Your task to perform on an android device: toggle show notifications on the lock screen Image 0: 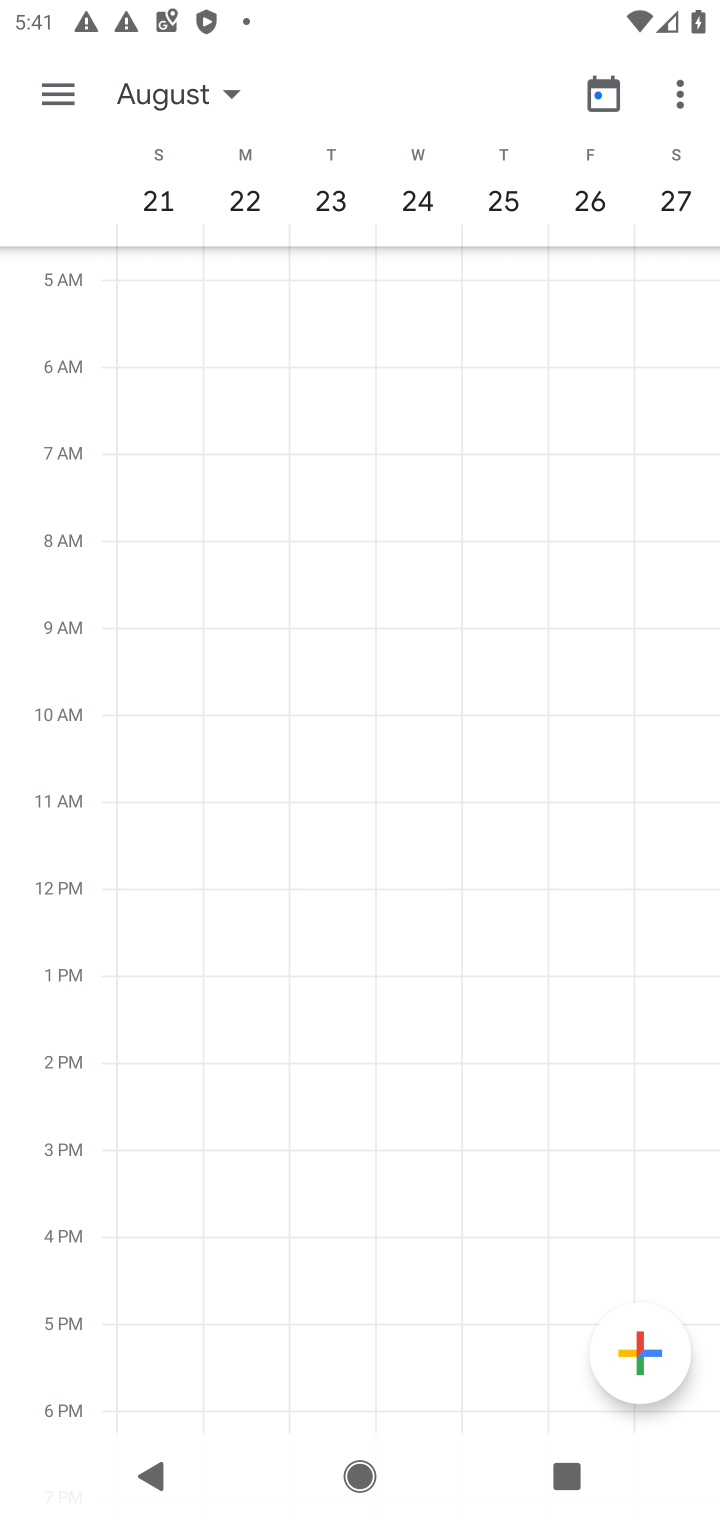
Step 0: press home button
Your task to perform on an android device: toggle show notifications on the lock screen Image 1: 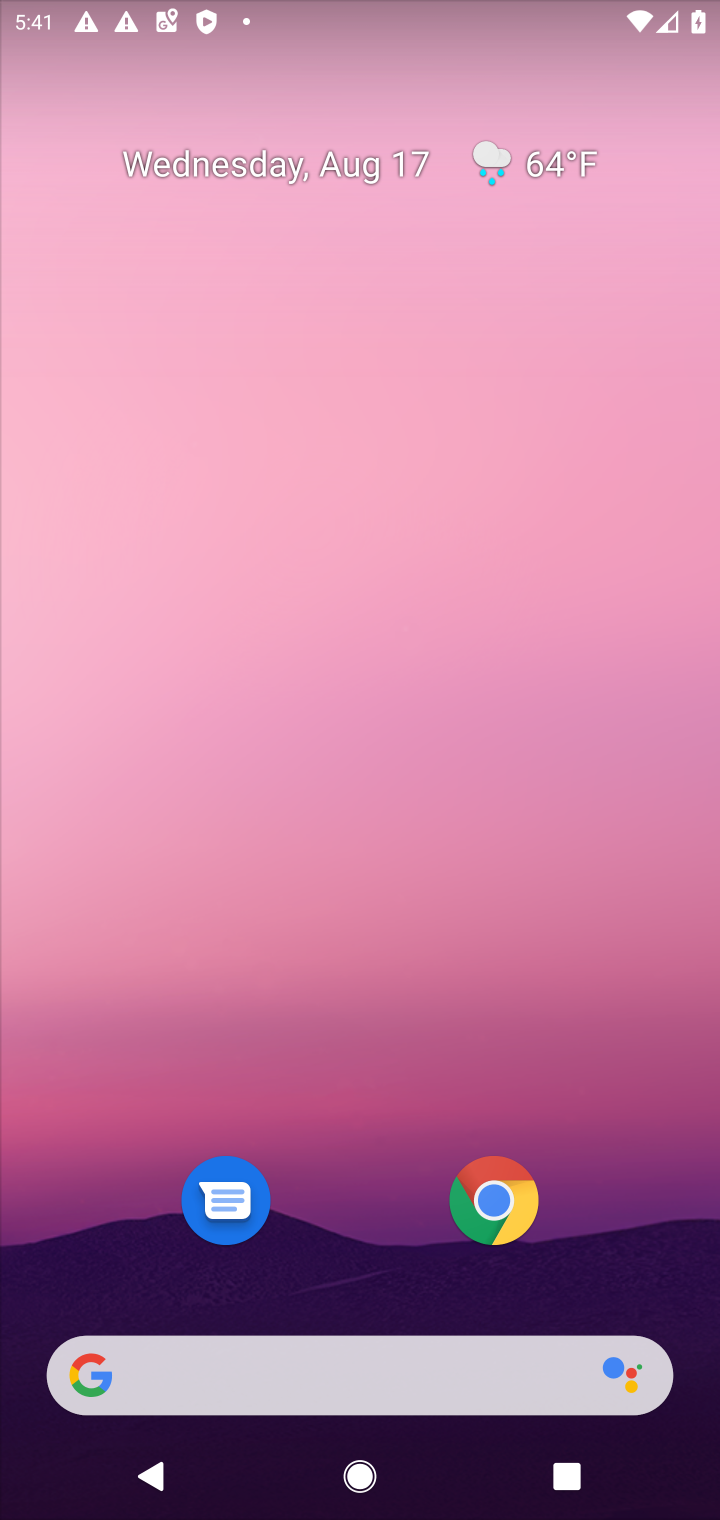
Step 1: drag from (397, 1242) to (416, 174)
Your task to perform on an android device: toggle show notifications on the lock screen Image 2: 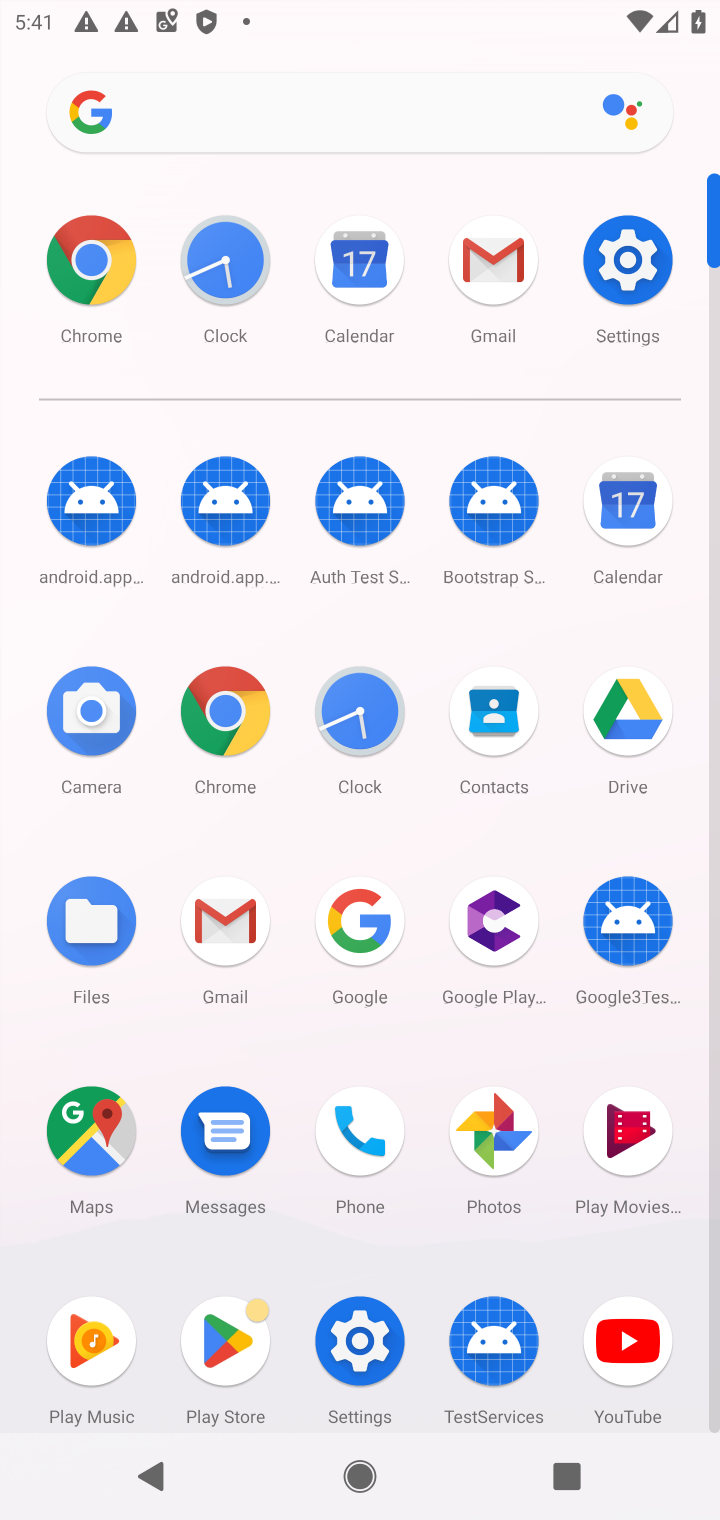
Step 2: click (365, 1331)
Your task to perform on an android device: toggle show notifications on the lock screen Image 3: 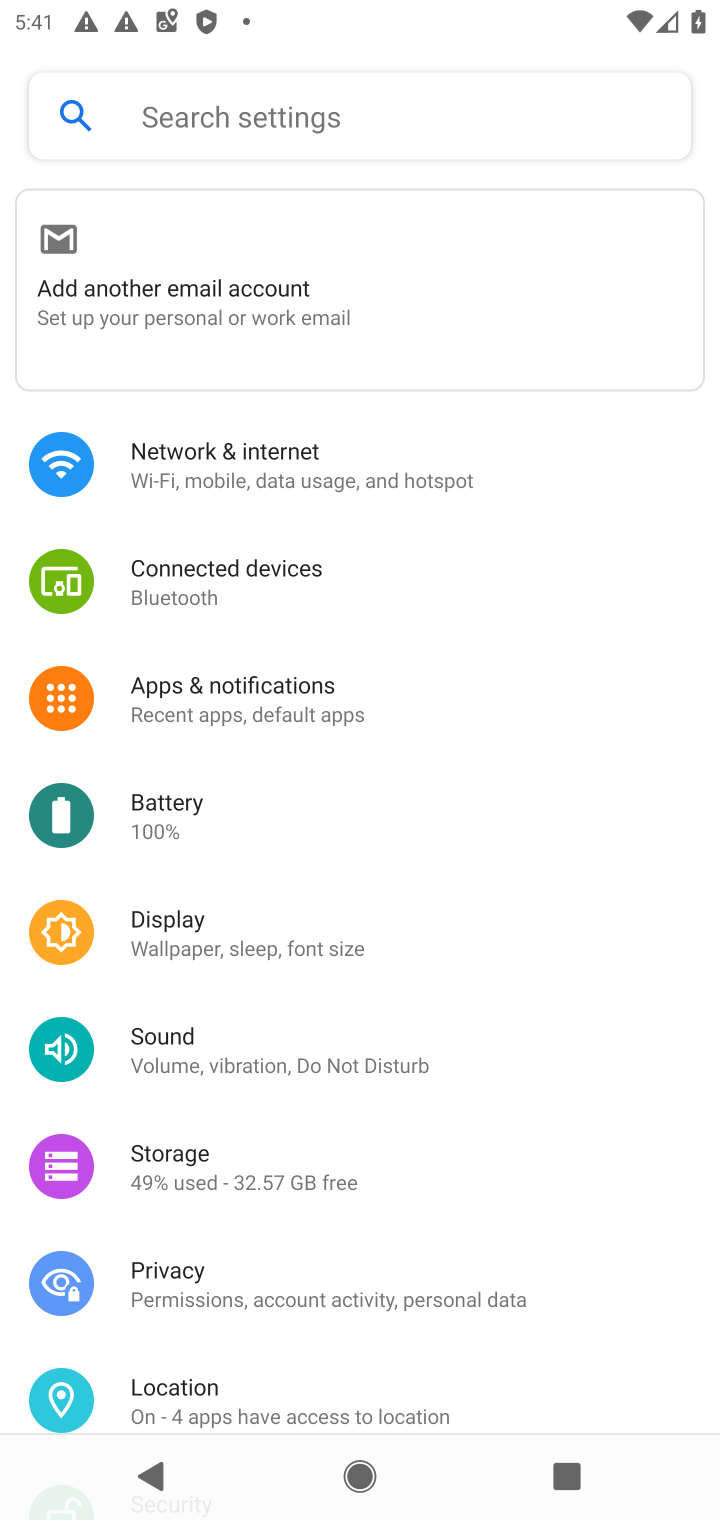
Step 3: click (145, 690)
Your task to perform on an android device: toggle show notifications on the lock screen Image 4: 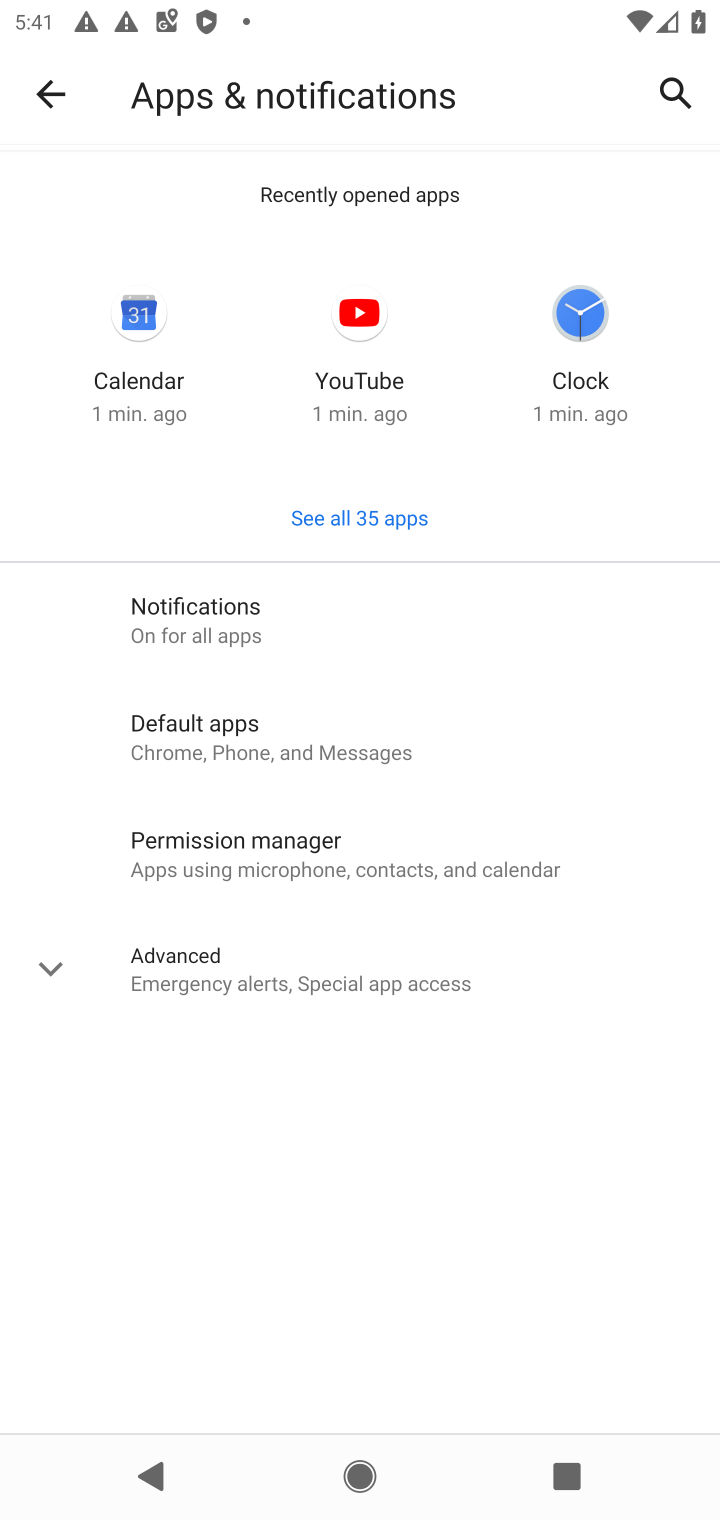
Step 4: click (178, 619)
Your task to perform on an android device: toggle show notifications on the lock screen Image 5: 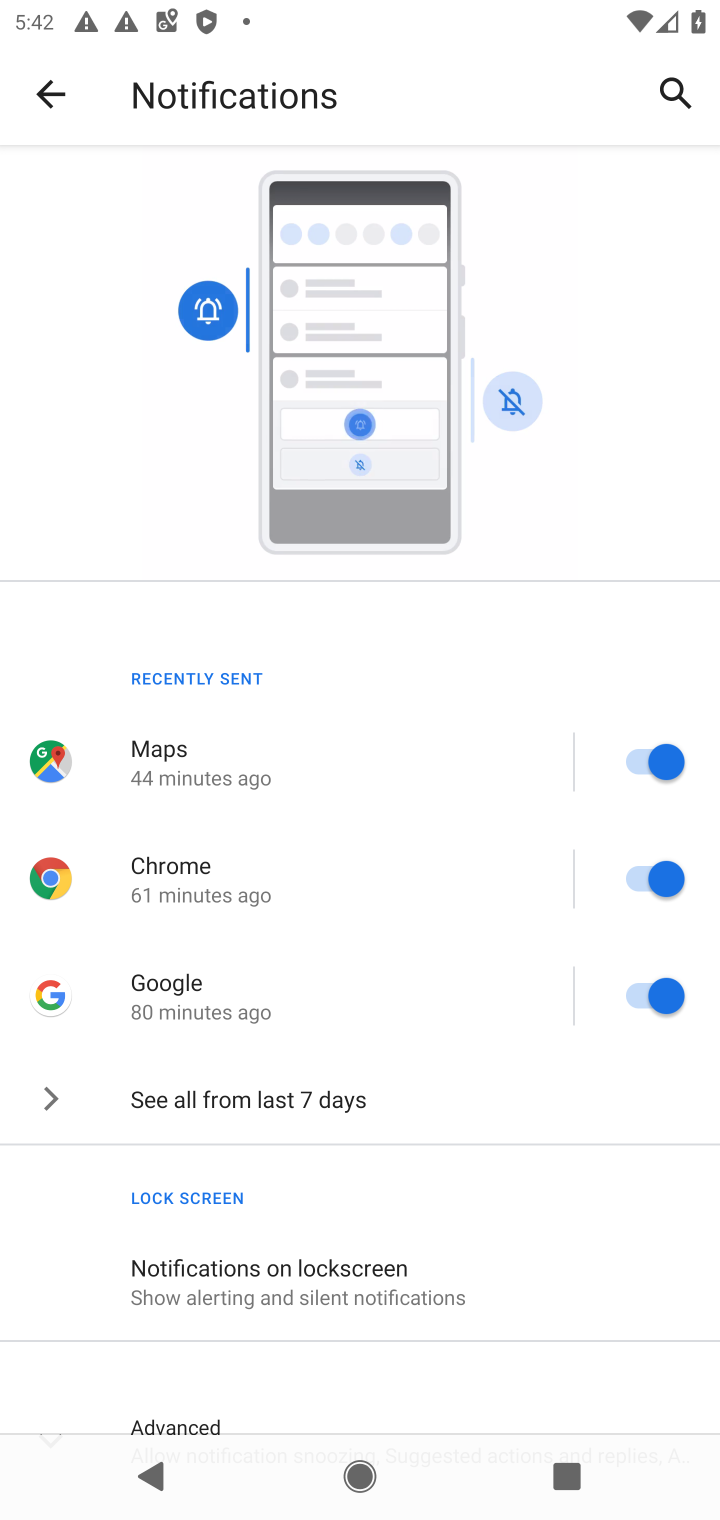
Step 5: drag from (308, 1076) to (299, 835)
Your task to perform on an android device: toggle show notifications on the lock screen Image 6: 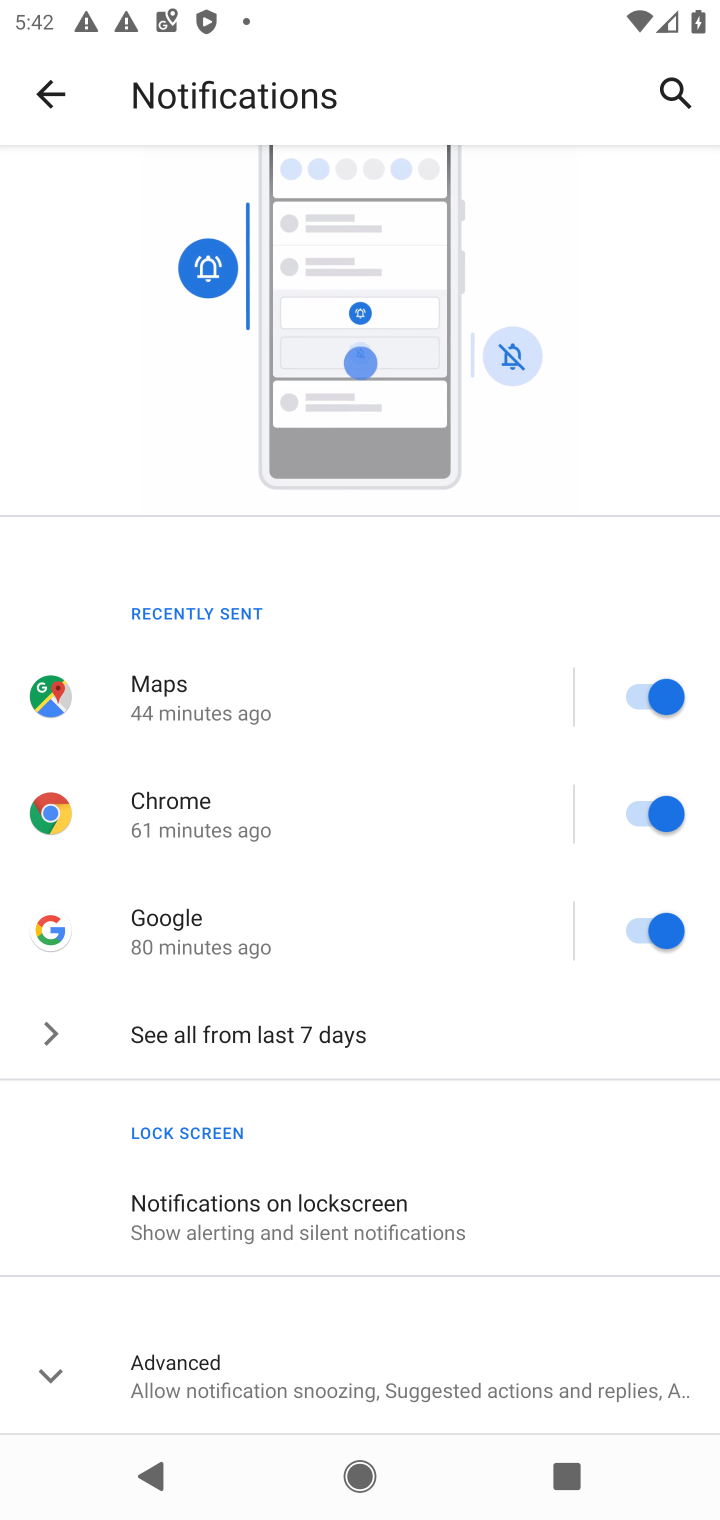
Step 6: click (287, 1219)
Your task to perform on an android device: toggle show notifications on the lock screen Image 7: 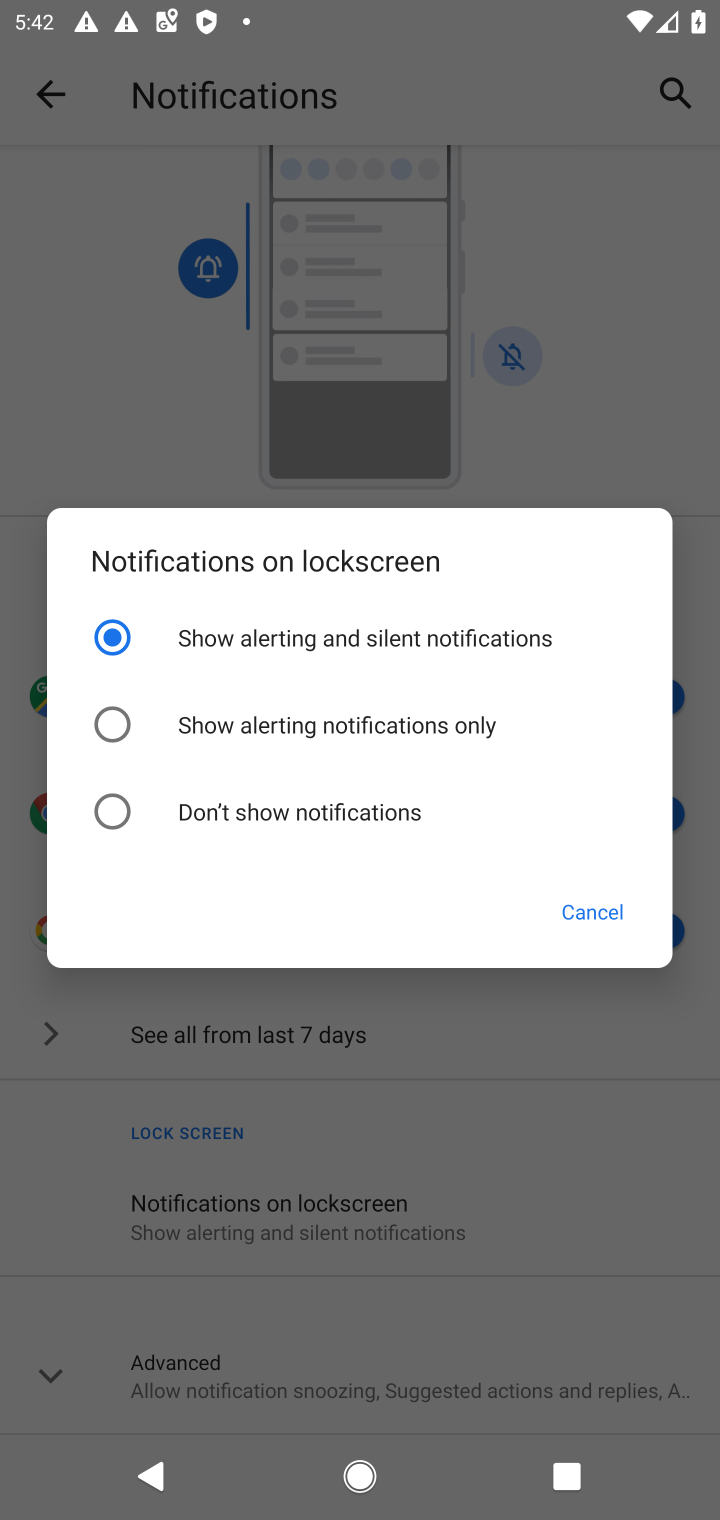
Step 7: click (119, 718)
Your task to perform on an android device: toggle show notifications on the lock screen Image 8: 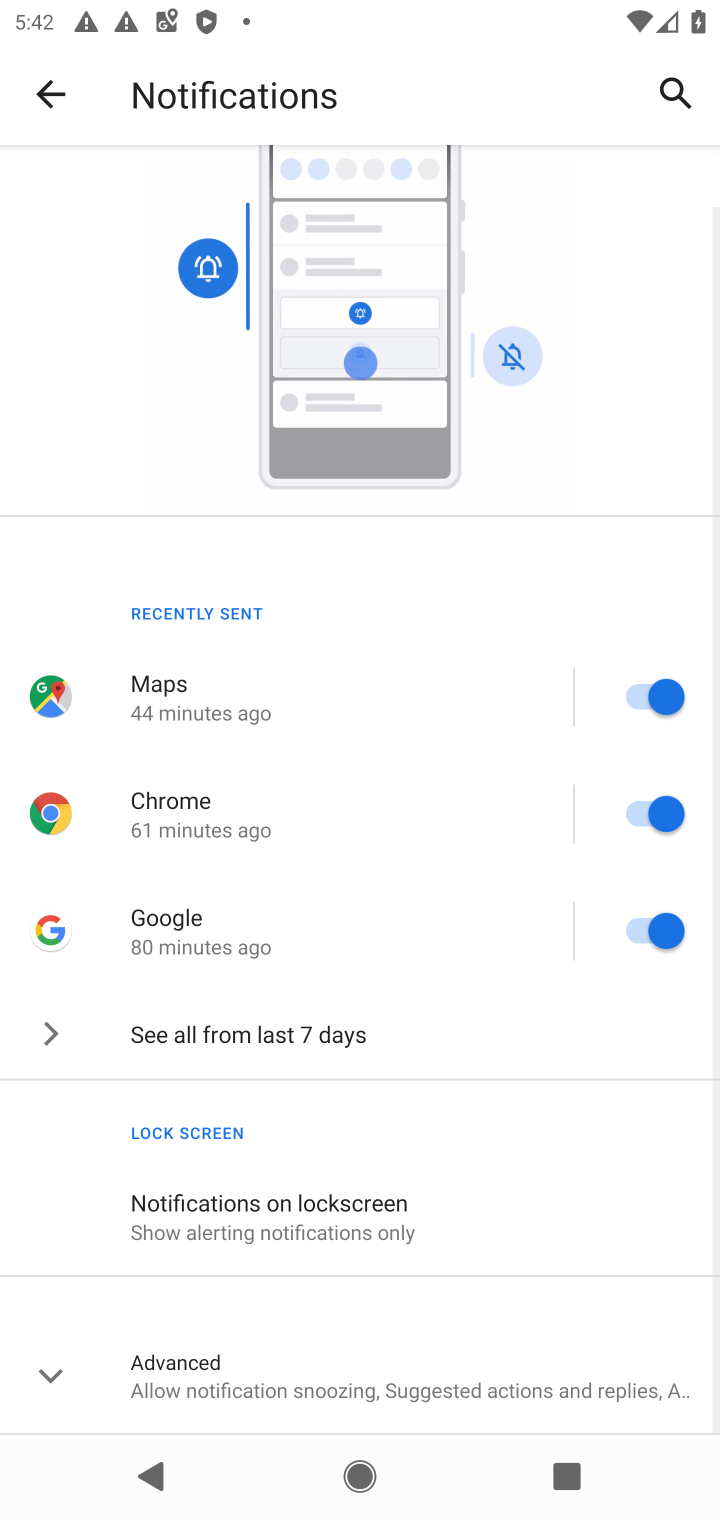
Step 8: task complete